Your task to perform on an android device: Open calendar and show me the second week of next month Image 0: 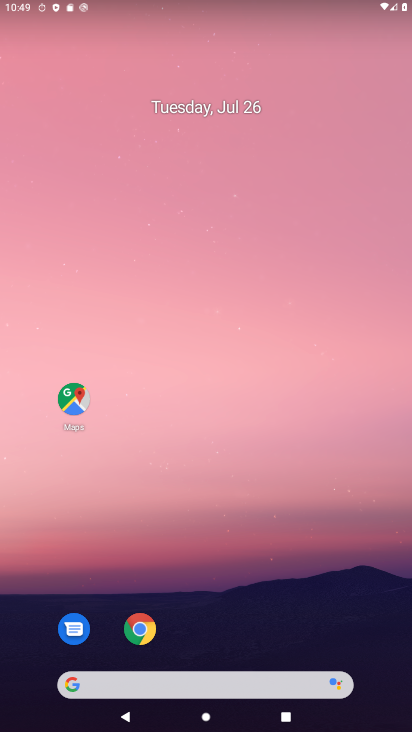
Step 0: drag from (353, 616) to (126, 76)
Your task to perform on an android device: Open calendar and show me the second week of next month Image 1: 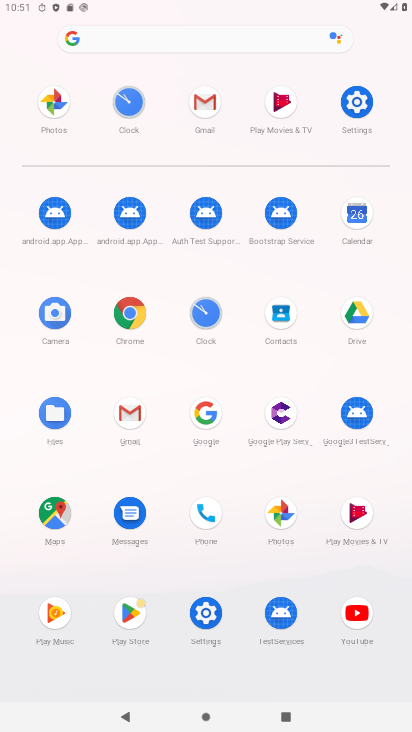
Step 1: click (353, 211)
Your task to perform on an android device: Open calendar and show me the second week of next month Image 2: 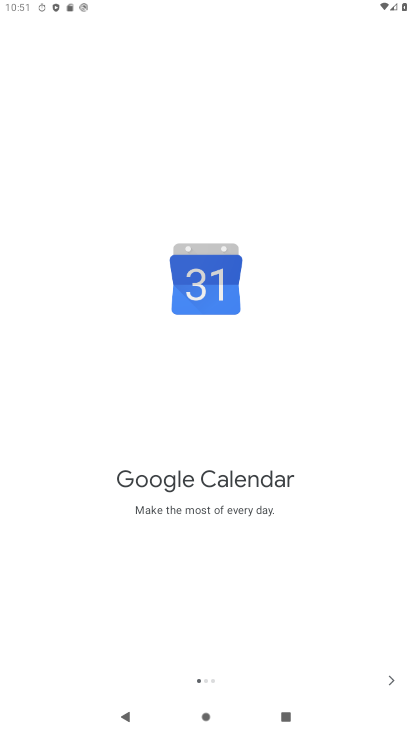
Step 2: click (393, 679)
Your task to perform on an android device: Open calendar and show me the second week of next month Image 3: 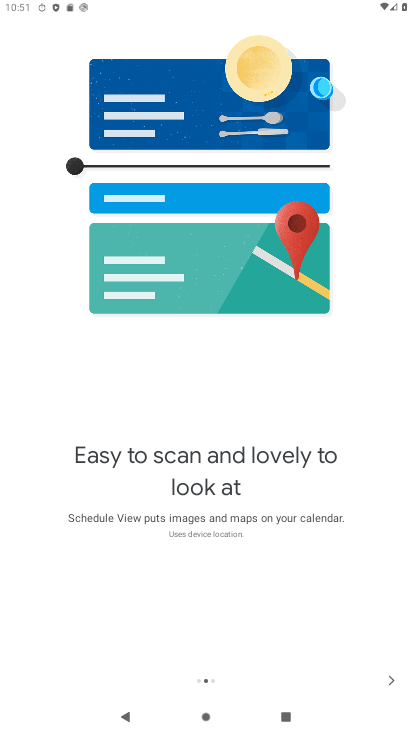
Step 3: click (393, 679)
Your task to perform on an android device: Open calendar and show me the second week of next month Image 4: 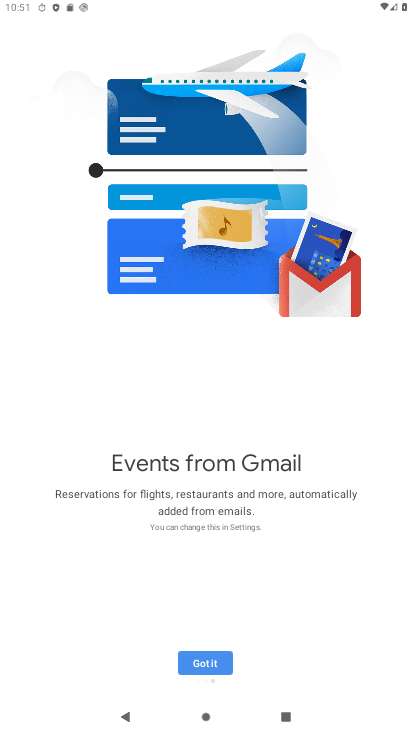
Step 4: click (393, 679)
Your task to perform on an android device: Open calendar and show me the second week of next month Image 5: 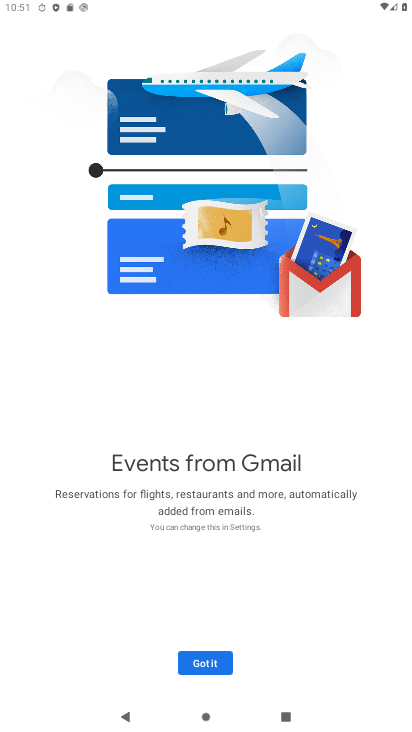
Step 5: click (206, 653)
Your task to perform on an android device: Open calendar and show me the second week of next month Image 6: 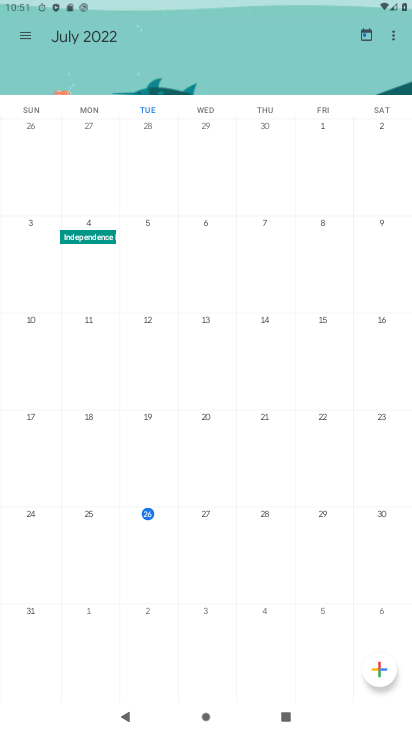
Step 6: drag from (317, 341) to (42, 333)
Your task to perform on an android device: Open calendar and show me the second week of next month Image 7: 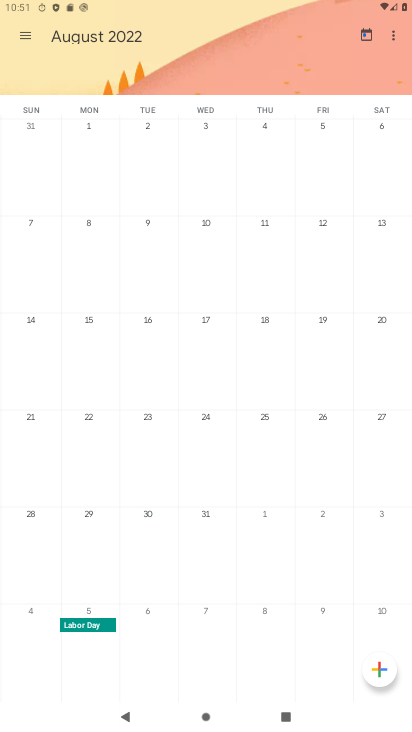
Step 7: click (26, 230)
Your task to perform on an android device: Open calendar and show me the second week of next month Image 8: 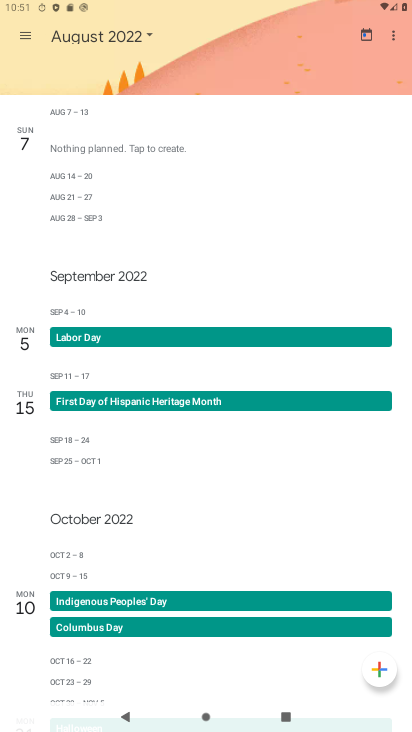
Step 8: task complete